Your task to perform on an android device: open app "Messages" Image 0: 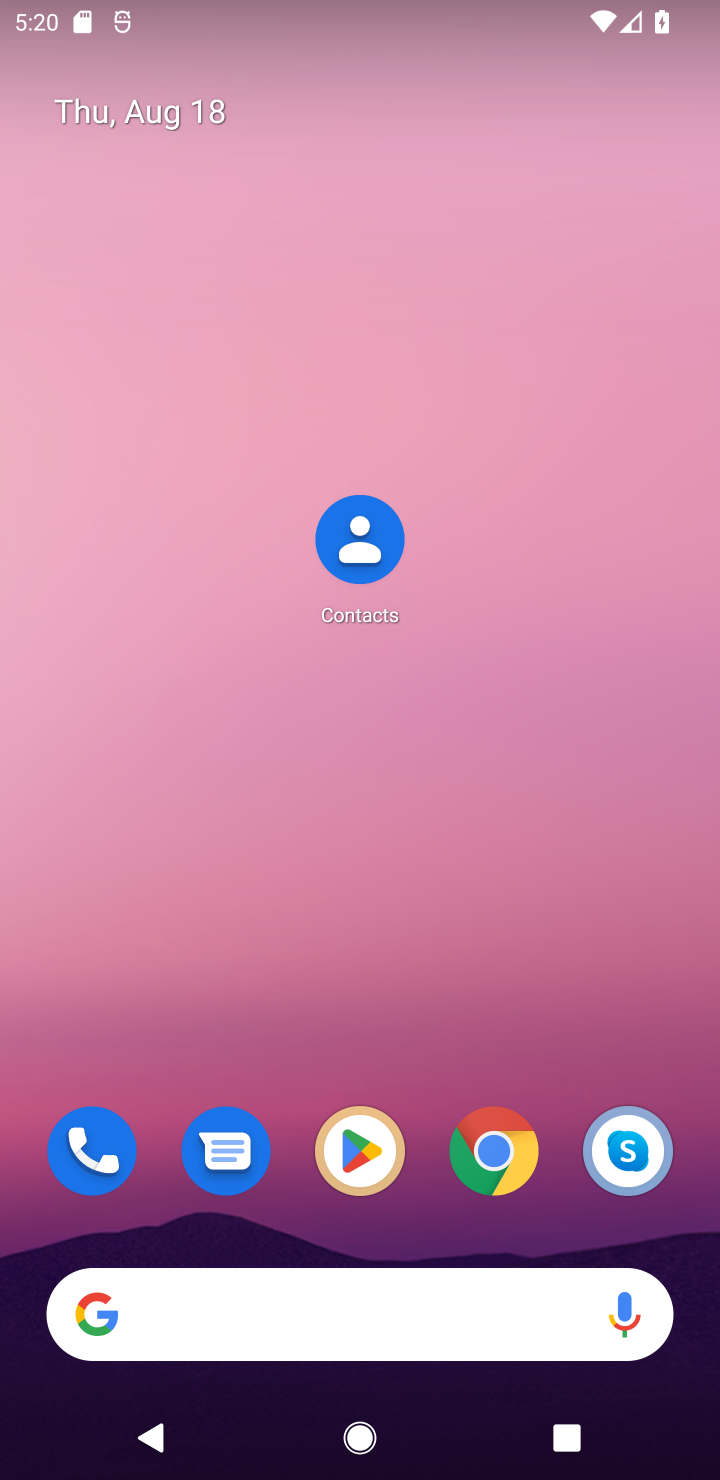
Step 0: click (251, 1187)
Your task to perform on an android device: open app "Messages" Image 1: 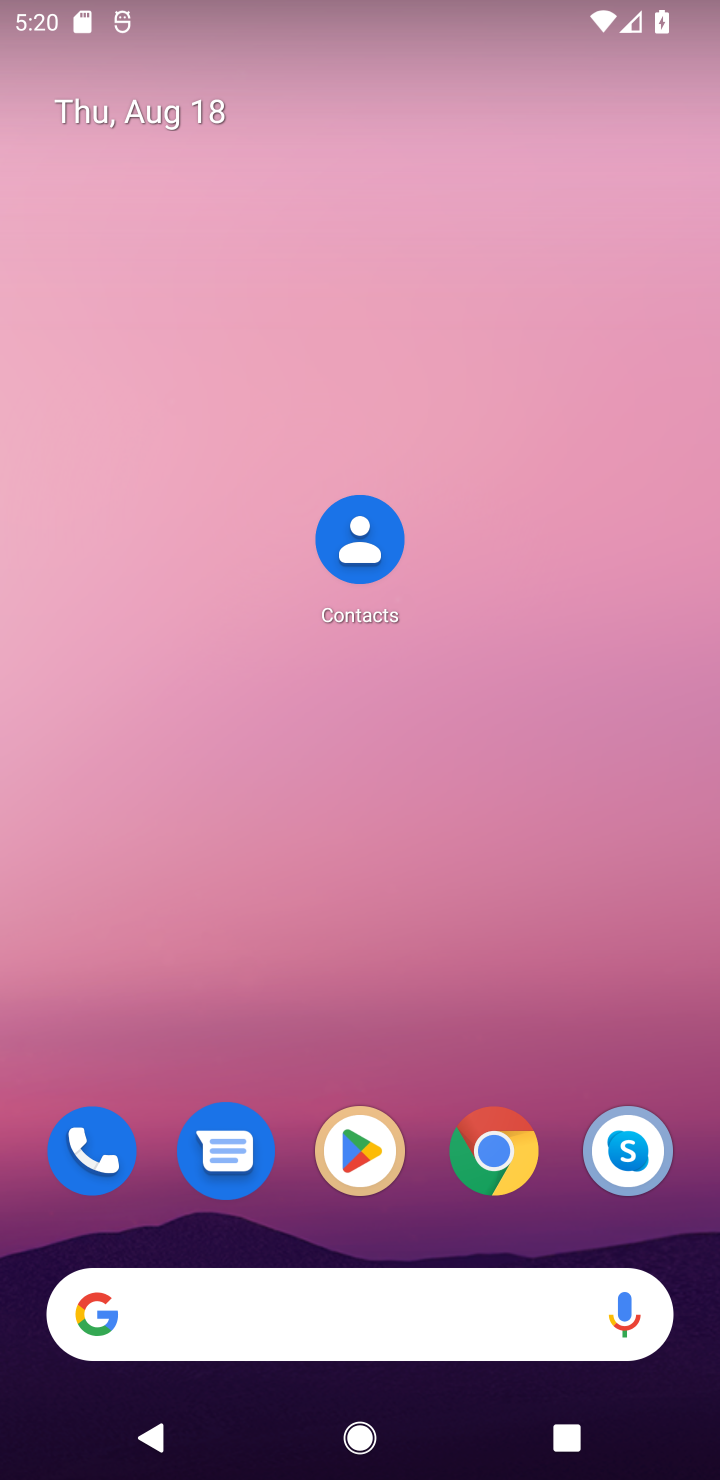
Step 1: task complete